Your task to perform on an android device: Show me popular videos on Youtube Image 0: 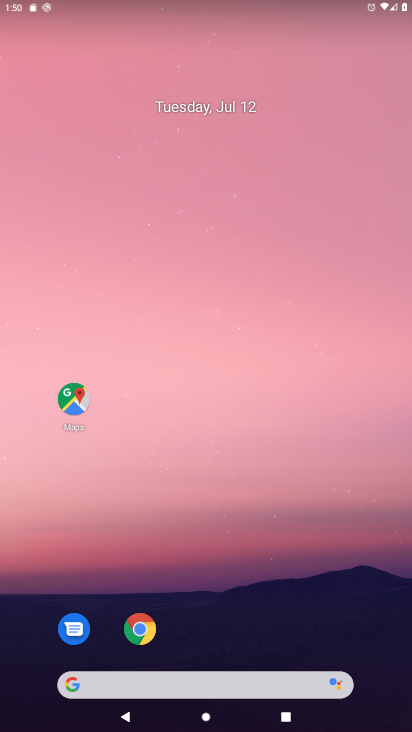
Step 0: drag from (177, 673) to (168, 42)
Your task to perform on an android device: Show me popular videos on Youtube Image 1: 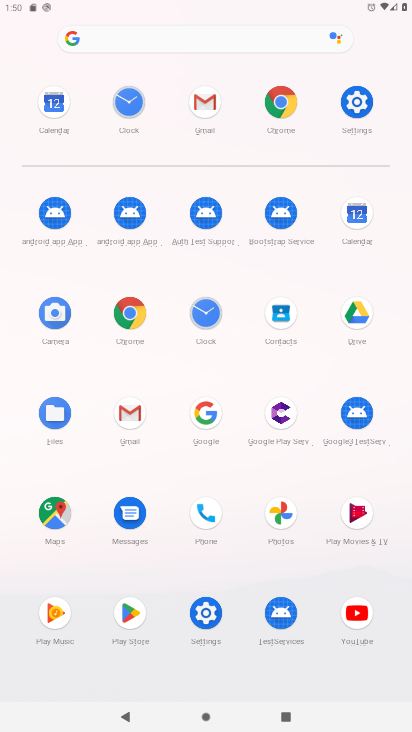
Step 1: click (361, 608)
Your task to perform on an android device: Show me popular videos on Youtube Image 2: 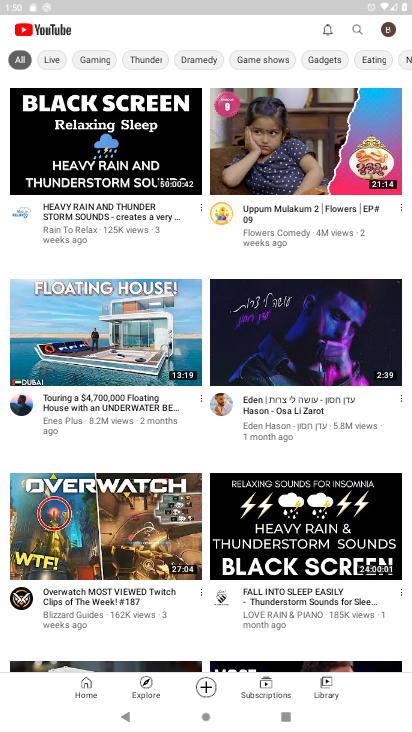
Step 2: task complete